Your task to perform on an android device: open app "Adobe Acrobat Reader: Edit PDF" (install if not already installed) and go to login screen Image 0: 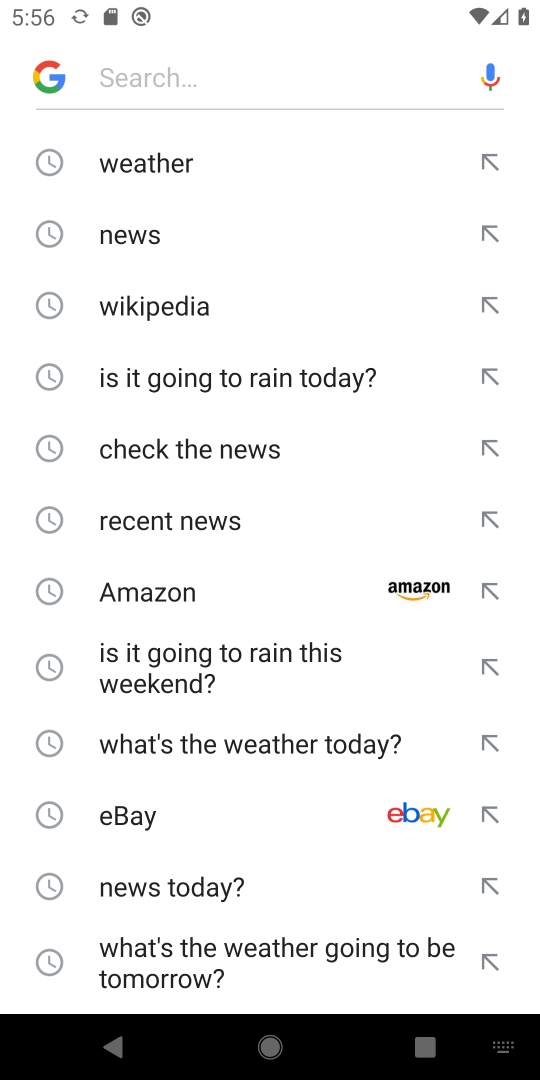
Step 0: press home button
Your task to perform on an android device: open app "Adobe Acrobat Reader: Edit PDF" (install if not already installed) and go to login screen Image 1: 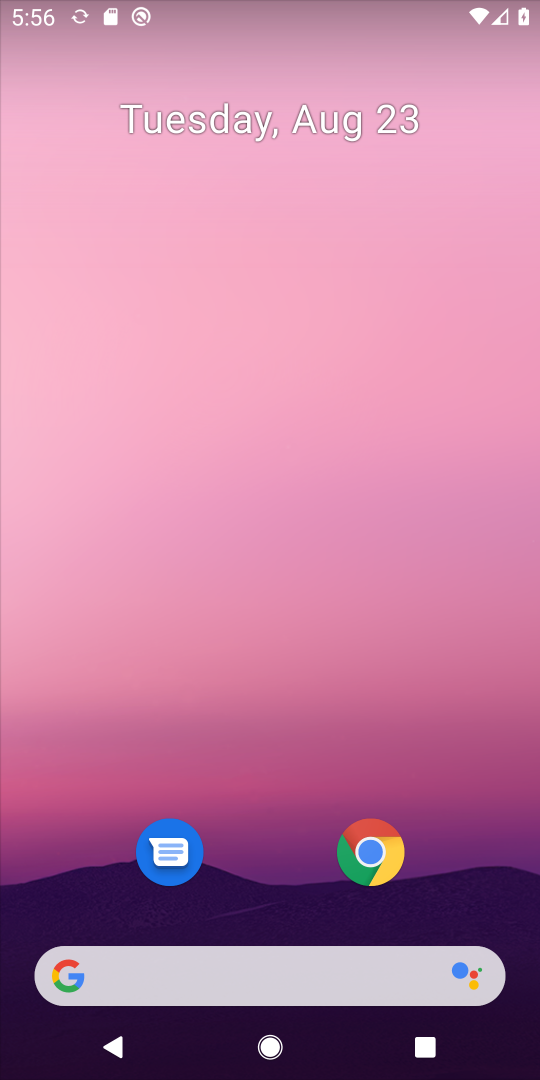
Step 1: drag from (178, 977) to (246, 54)
Your task to perform on an android device: open app "Adobe Acrobat Reader: Edit PDF" (install if not already installed) and go to login screen Image 2: 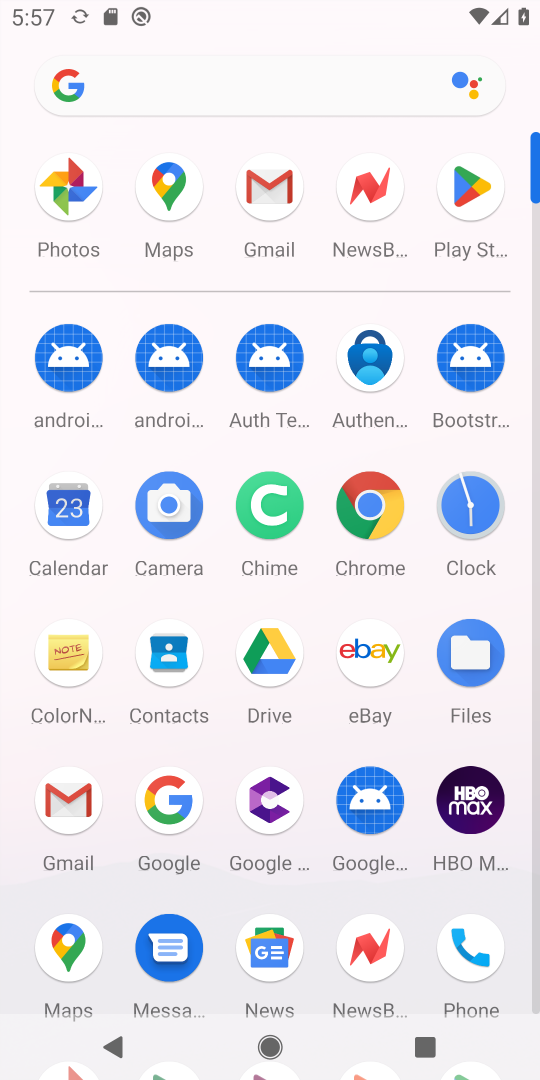
Step 2: click (468, 199)
Your task to perform on an android device: open app "Adobe Acrobat Reader: Edit PDF" (install if not already installed) and go to login screen Image 3: 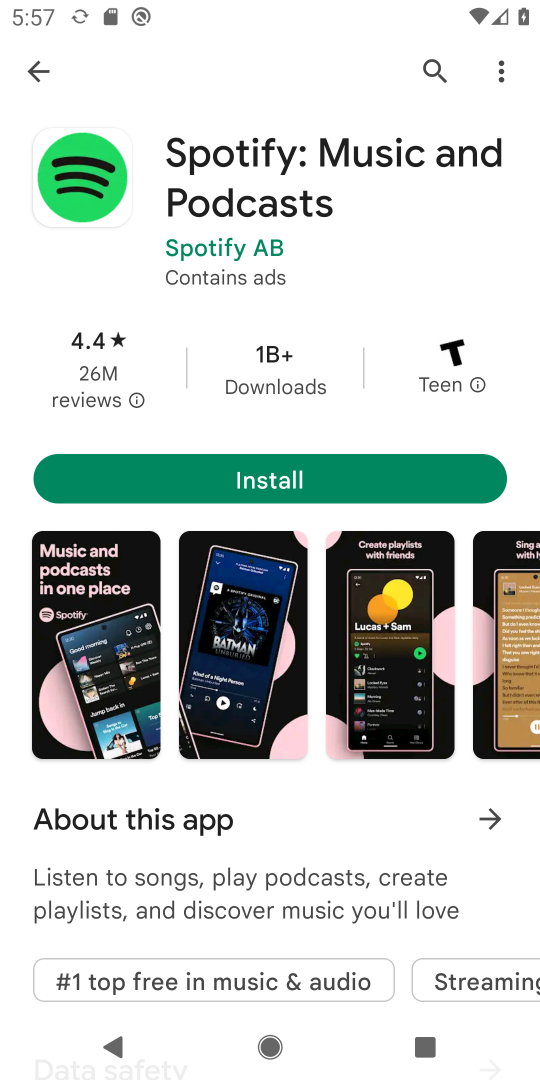
Step 3: press back button
Your task to perform on an android device: open app "Adobe Acrobat Reader: Edit PDF" (install if not already installed) and go to login screen Image 4: 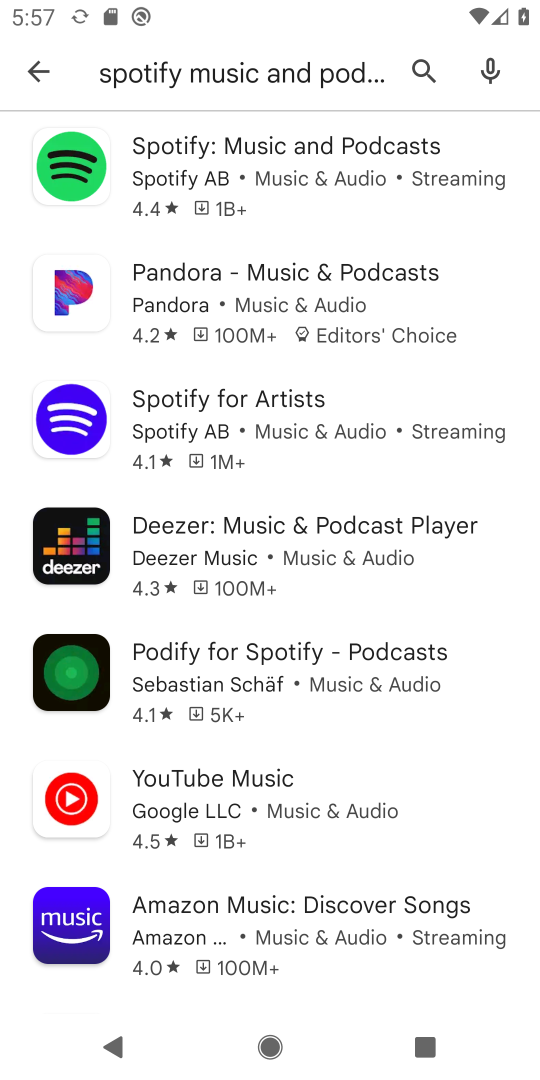
Step 4: press back button
Your task to perform on an android device: open app "Adobe Acrobat Reader: Edit PDF" (install if not already installed) and go to login screen Image 5: 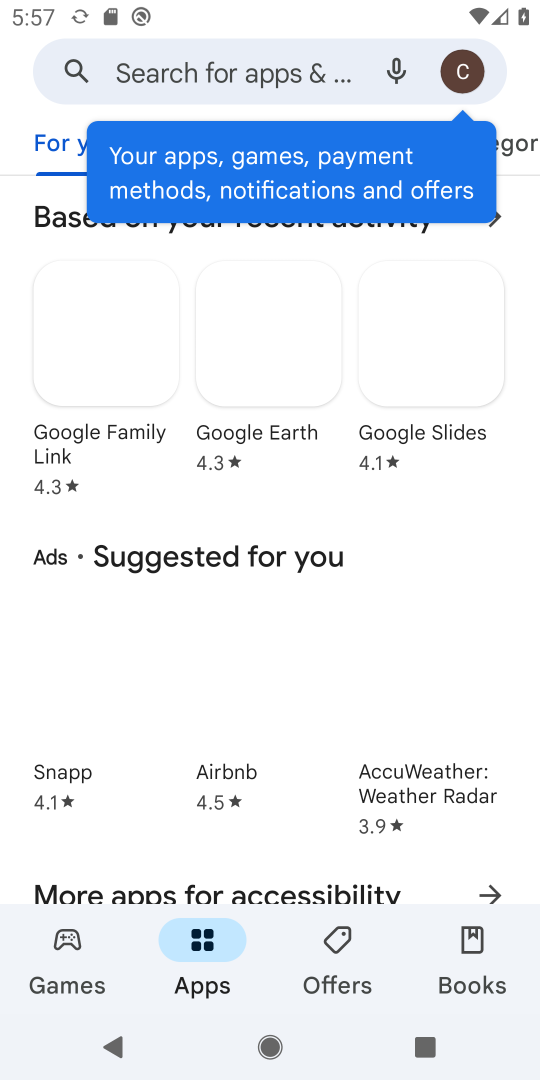
Step 5: click (182, 90)
Your task to perform on an android device: open app "Adobe Acrobat Reader: Edit PDF" (install if not already installed) and go to login screen Image 6: 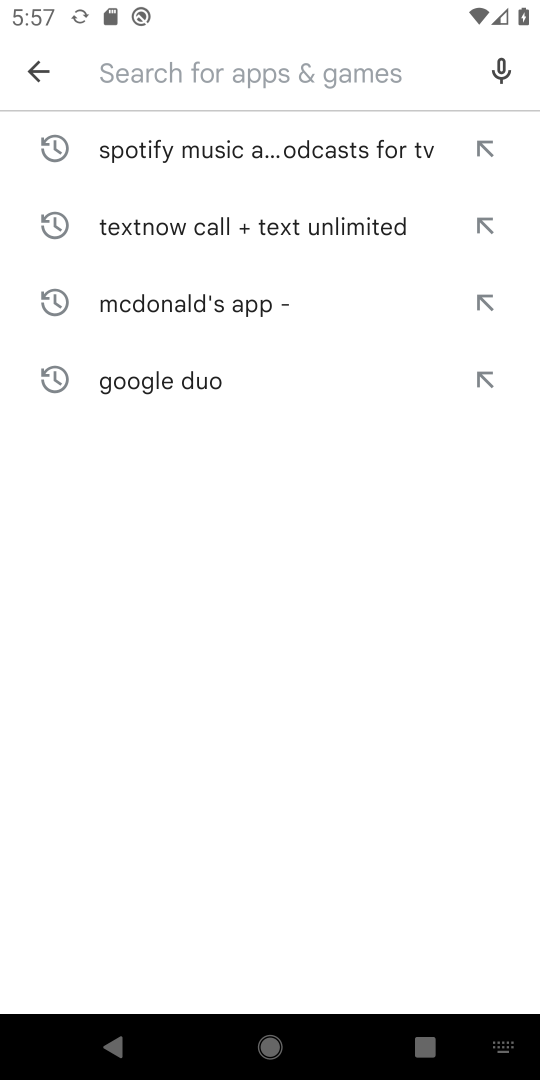
Step 6: type "Adobe Acrobat Reader: Edit PDF"
Your task to perform on an android device: open app "Adobe Acrobat Reader: Edit PDF" (install if not already installed) and go to login screen Image 7: 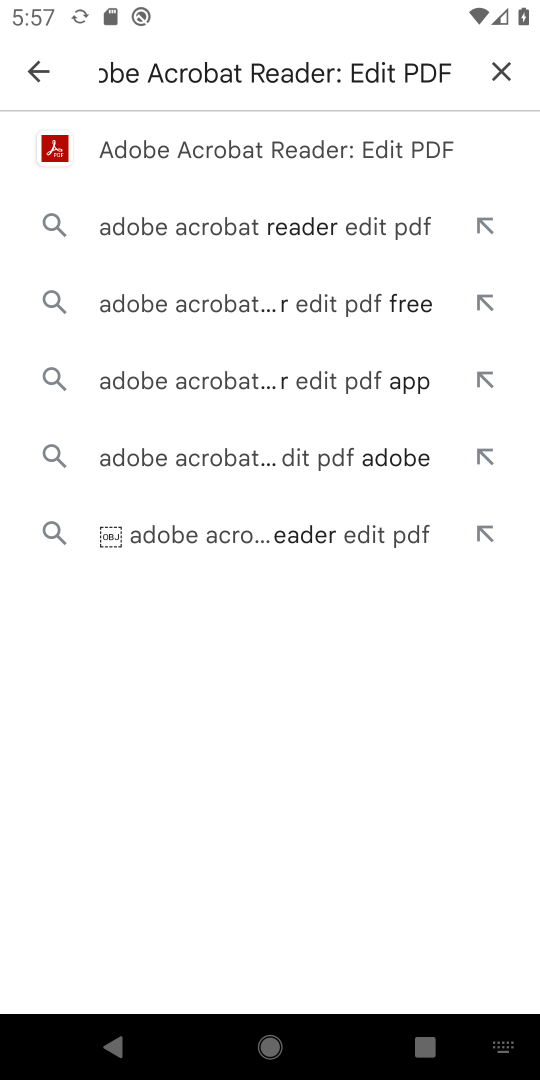
Step 7: click (231, 155)
Your task to perform on an android device: open app "Adobe Acrobat Reader: Edit PDF" (install if not already installed) and go to login screen Image 8: 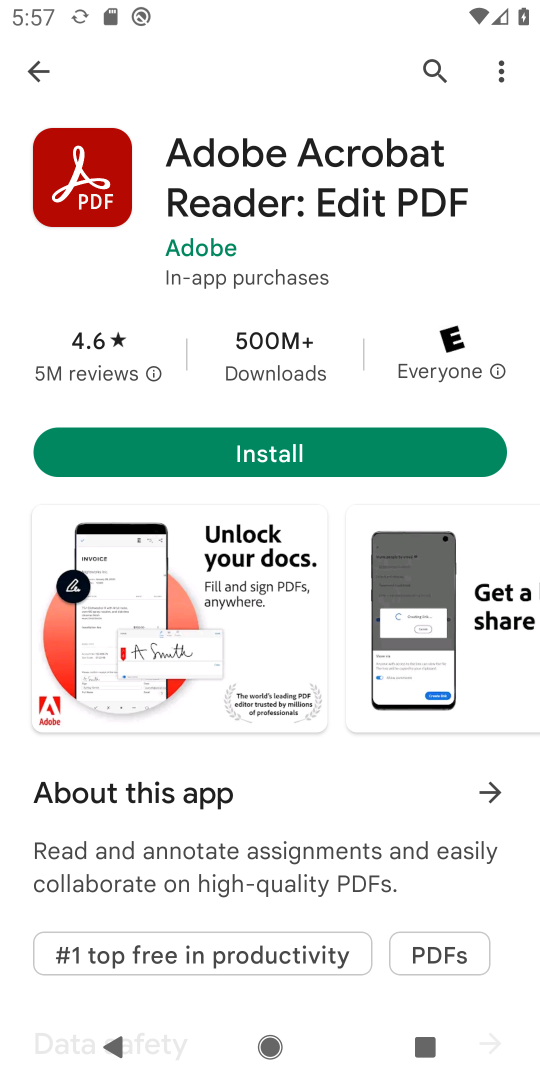
Step 8: click (297, 457)
Your task to perform on an android device: open app "Adobe Acrobat Reader: Edit PDF" (install if not already installed) and go to login screen Image 9: 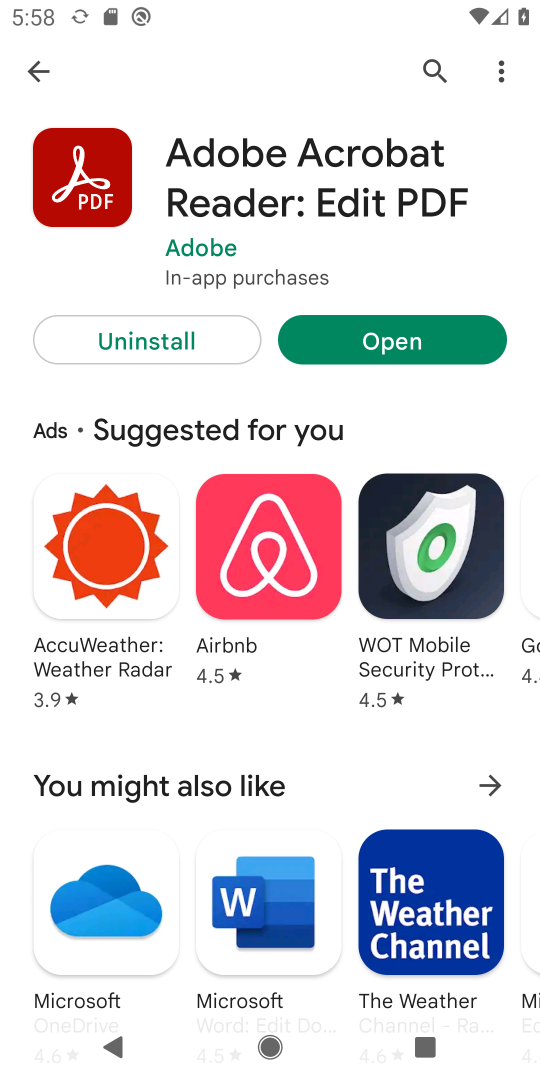
Step 9: click (389, 342)
Your task to perform on an android device: open app "Adobe Acrobat Reader: Edit PDF" (install if not already installed) and go to login screen Image 10: 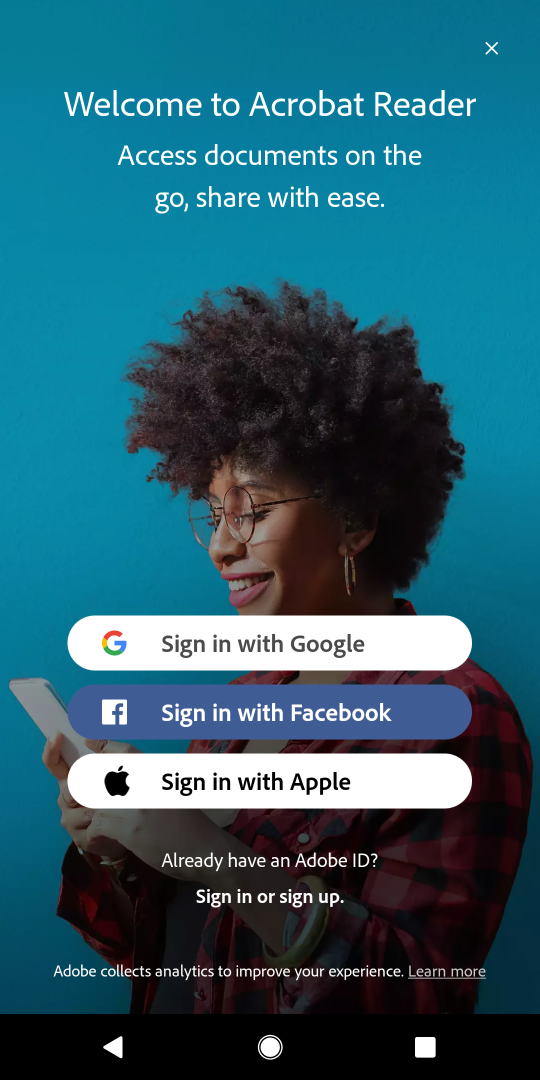
Step 10: click (320, 644)
Your task to perform on an android device: open app "Adobe Acrobat Reader: Edit PDF" (install if not already installed) and go to login screen Image 11: 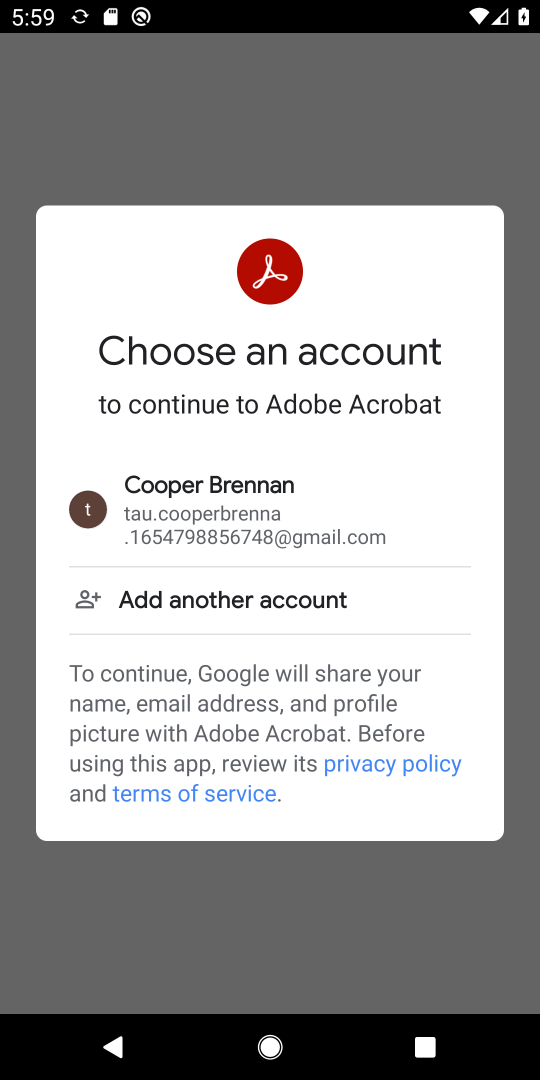
Step 11: task complete